Your task to perform on an android device: Turn off the flashlight Image 0: 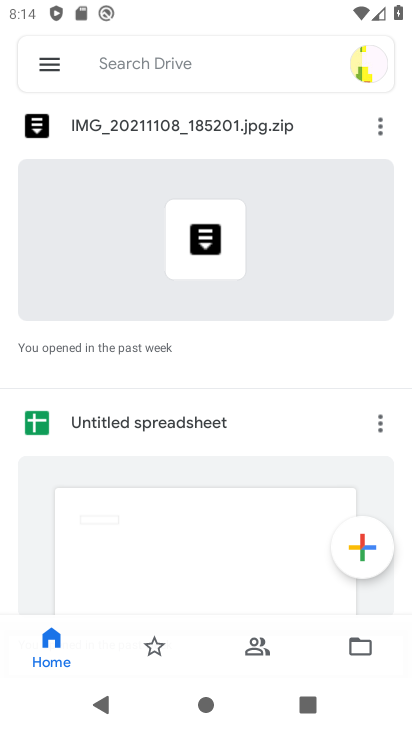
Step 0: drag from (269, 59) to (241, 461)
Your task to perform on an android device: Turn off the flashlight Image 1: 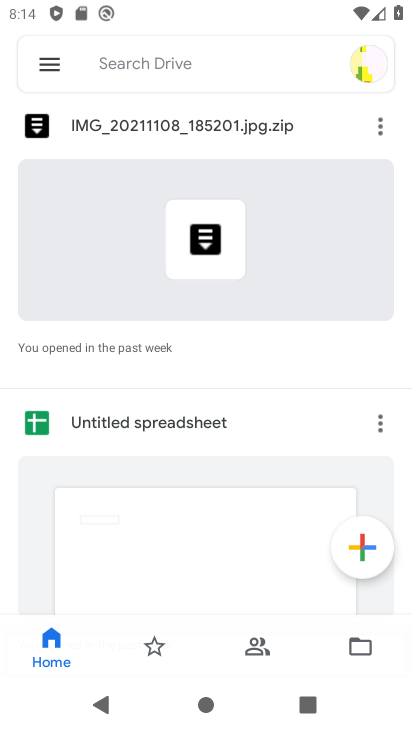
Step 1: task complete